Your task to perform on an android device: delete browsing data in the chrome app Image 0: 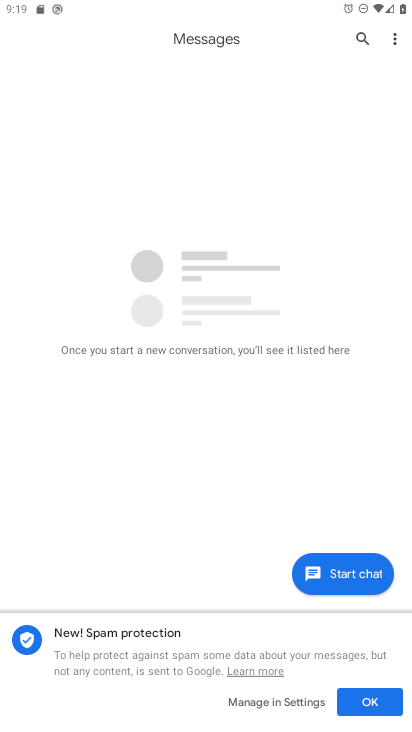
Step 0: press home button
Your task to perform on an android device: delete browsing data in the chrome app Image 1: 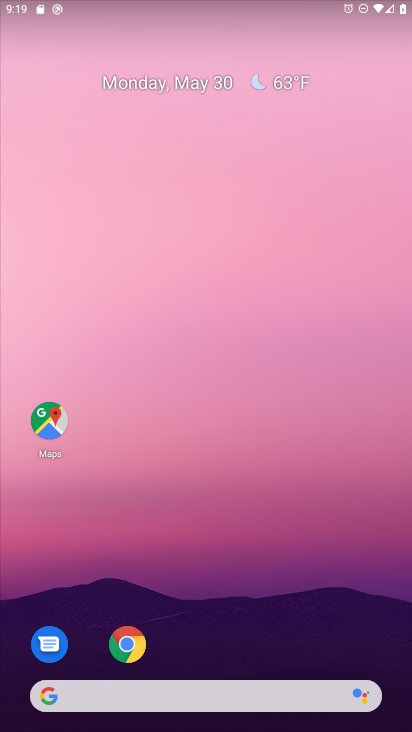
Step 1: click (127, 647)
Your task to perform on an android device: delete browsing data in the chrome app Image 2: 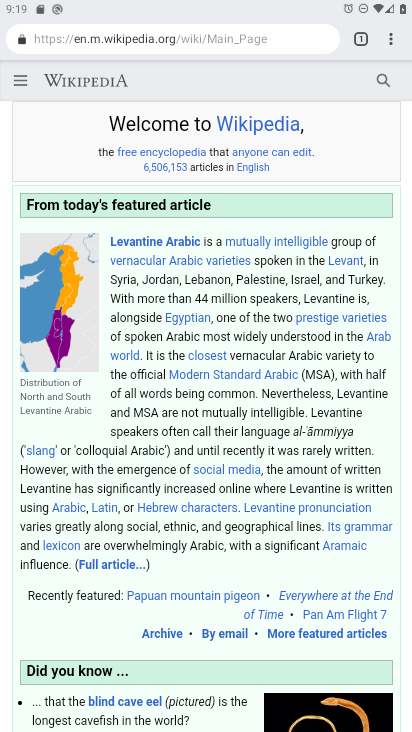
Step 2: click (383, 40)
Your task to perform on an android device: delete browsing data in the chrome app Image 3: 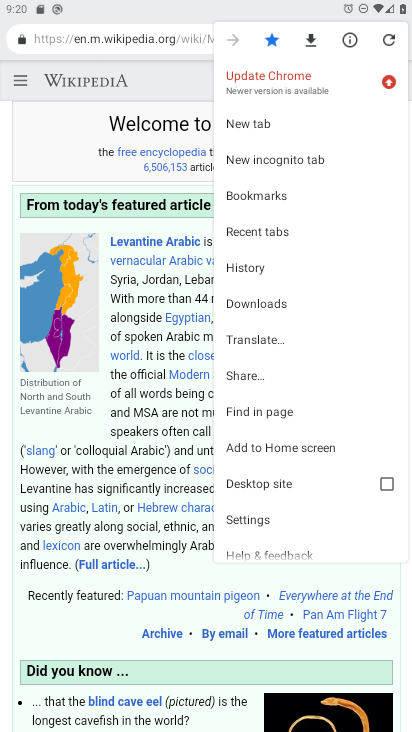
Step 3: click (266, 261)
Your task to perform on an android device: delete browsing data in the chrome app Image 4: 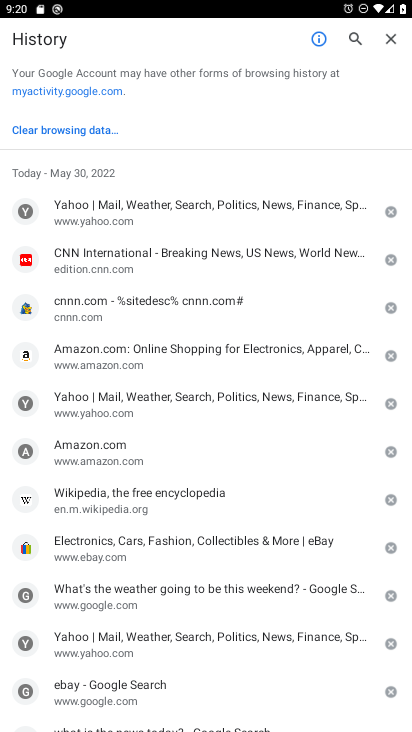
Step 4: click (83, 355)
Your task to perform on an android device: delete browsing data in the chrome app Image 5: 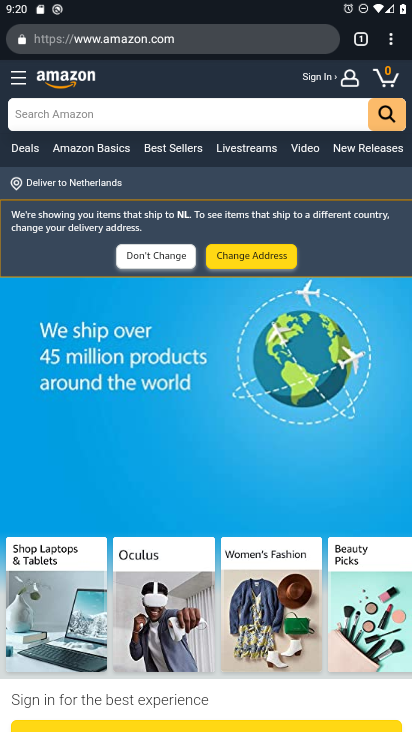
Step 5: task complete